Your task to perform on an android device: Open Chrome and go to settings Image 0: 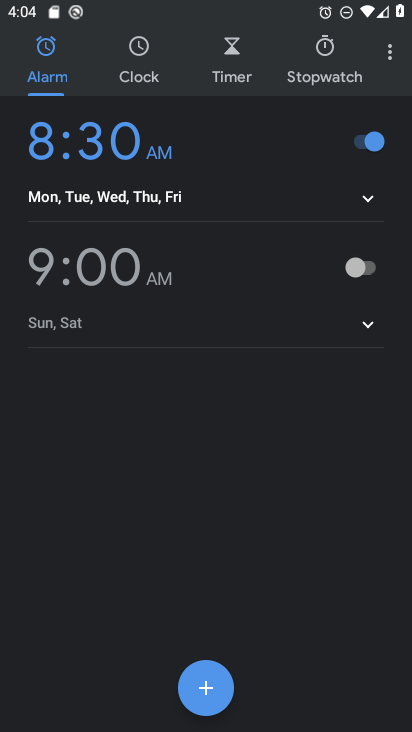
Step 0: press home button
Your task to perform on an android device: Open Chrome and go to settings Image 1: 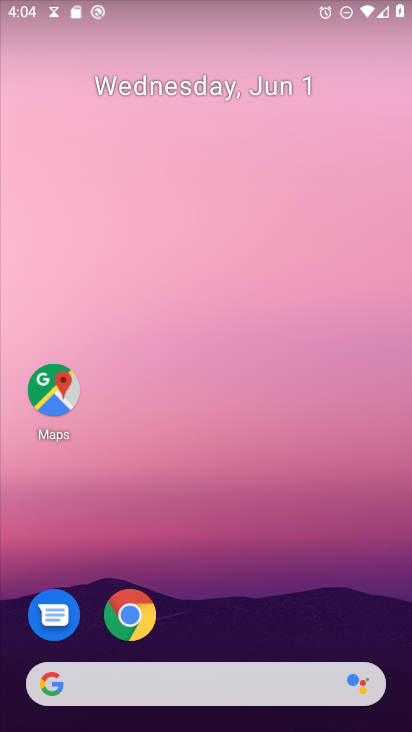
Step 1: drag from (214, 635) to (238, 88)
Your task to perform on an android device: Open Chrome and go to settings Image 2: 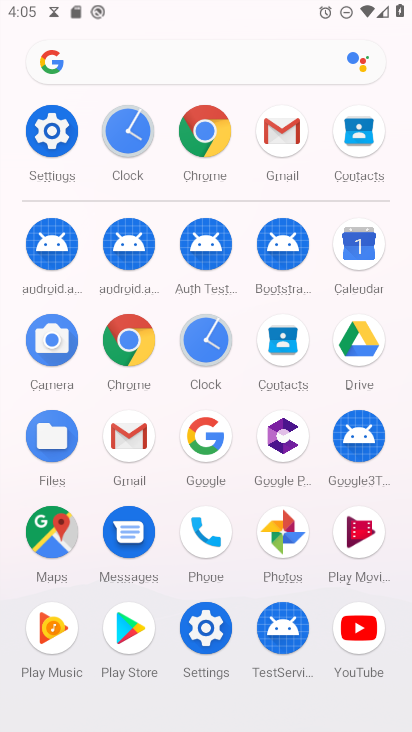
Step 2: click (125, 331)
Your task to perform on an android device: Open Chrome and go to settings Image 3: 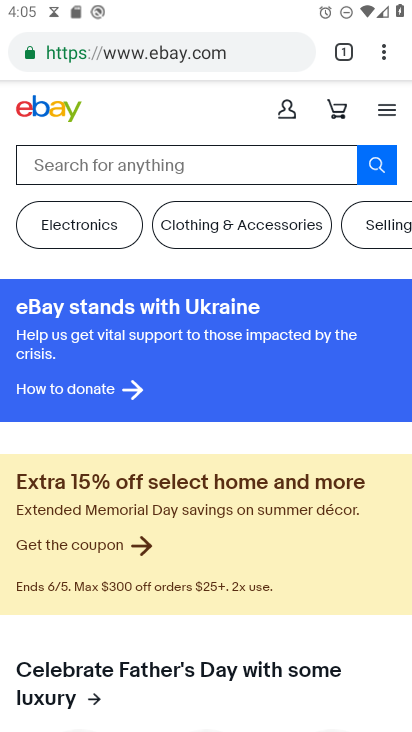
Step 3: click (380, 49)
Your task to perform on an android device: Open Chrome and go to settings Image 4: 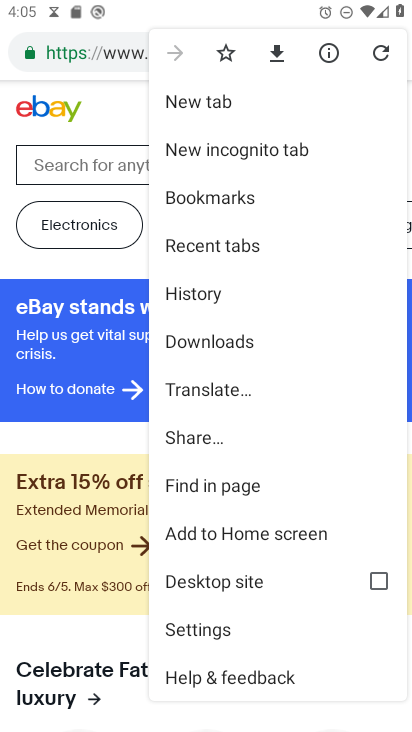
Step 4: click (245, 626)
Your task to perform on an android device: Open Chrome and go to settings Image 5: 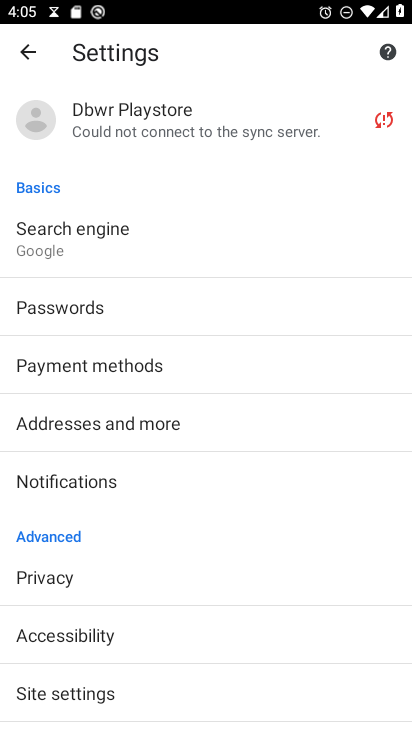
Step 5: task complete